Your task to perform on an android device: Open Amazon Image 0: 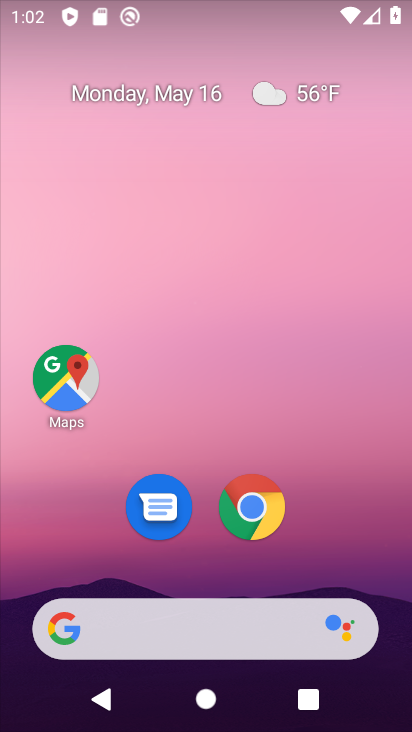
Step 0: click (238, 530)
Your task to perform on an android device: Open Amazon Image 1: 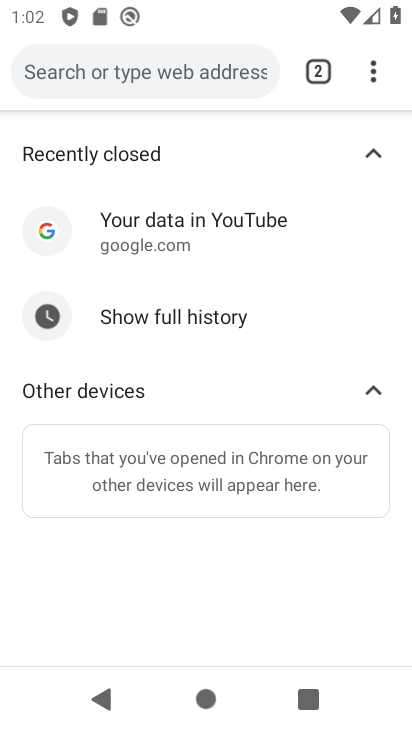
Step 1: click (309, 74)
Your task to perform on an android device: Open Amazon Image 2: 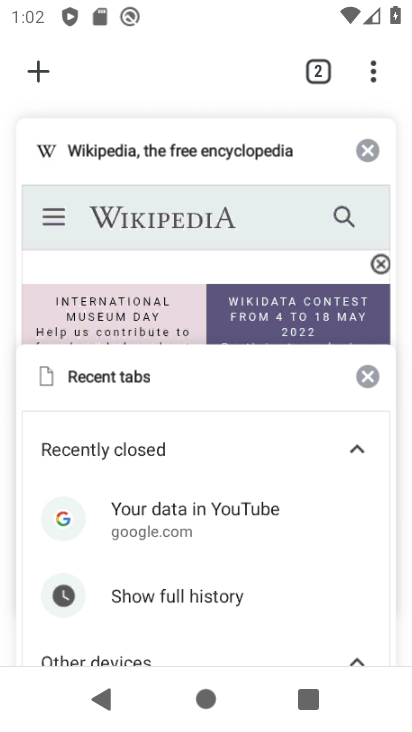
Step 2: click (36, 64)
Your task to perform on an android device: Open Amazon Image 3: 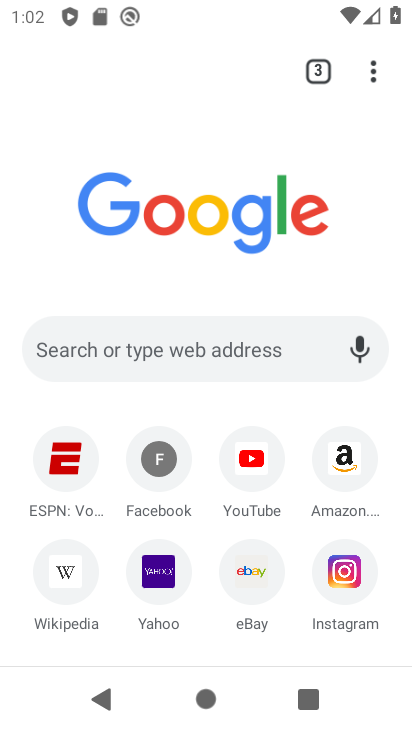
Step 3: click (345, 469)
Your task to perform on an android device: Open Amazon Image 4: 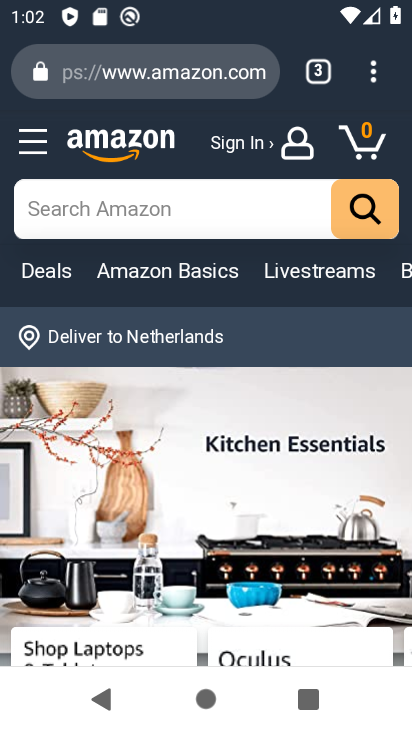
Step 4: task complete